Your task to perform on an android device: Toggle the flashlight Image 0: 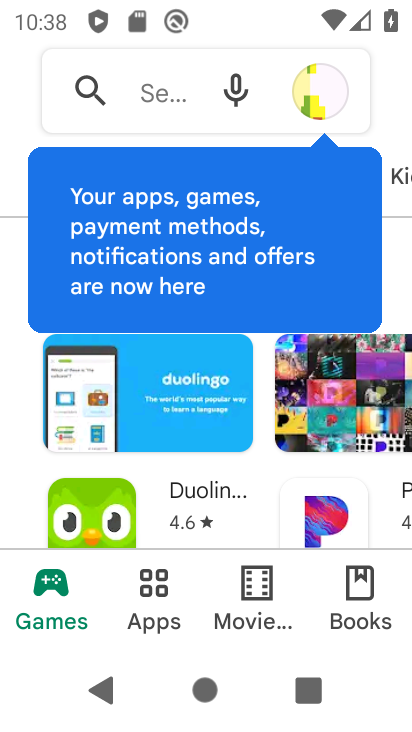
Step 0: press home button
Your task to perform on an android device: Toggle the flashlight Image 1: 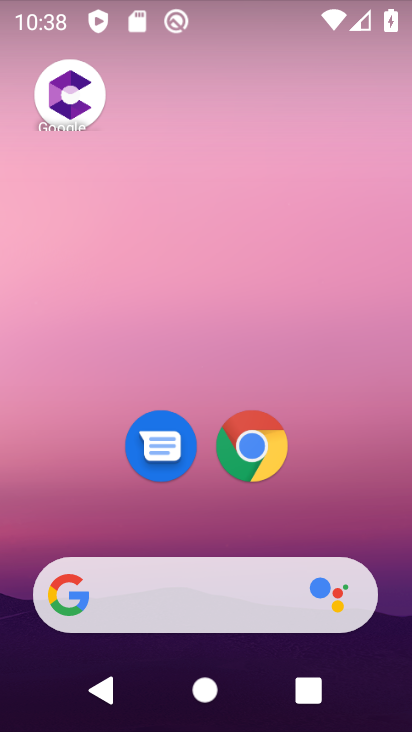
Step 1: drag from (202, 533) to (296, 33)
Your task to perform on an android device: Toggle the flashlight Image 2: 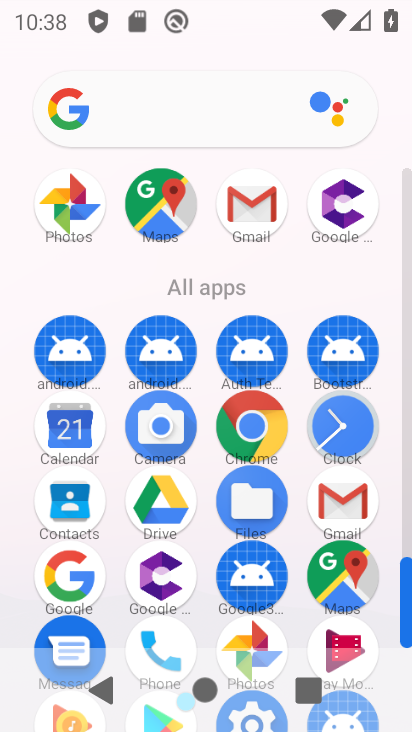
Step 2: drag from (199, 614) to (212, 302)
Your task to perform on an android device: Toggle the flashlight Image 3: 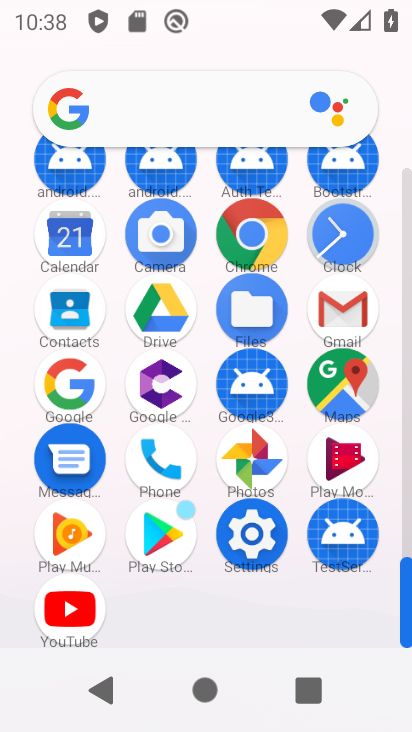
Step 3: click (245, 527)
Your task to perform on an android device: Toggle the flashlight Image 4: 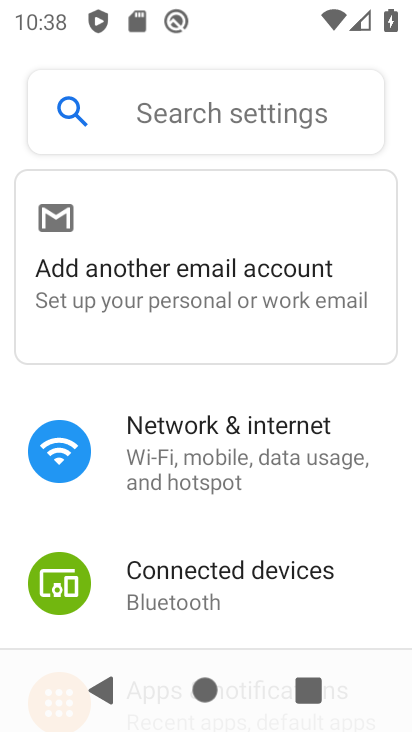
Step 4: click (179, 128)
Your task to perform on an android device: Toggle the flashlight Image 5: 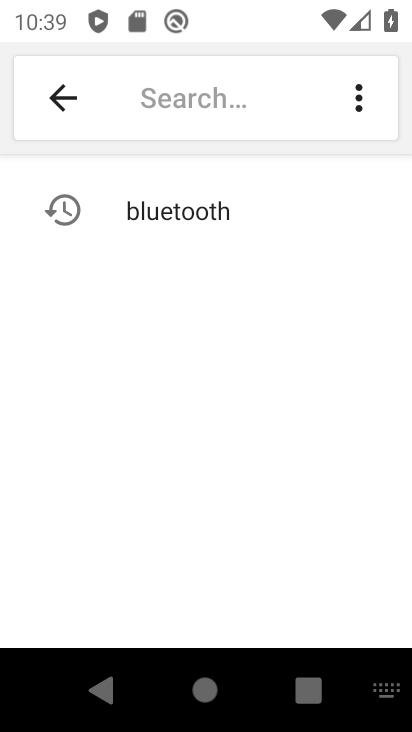
Step 5: type "flashlight"
Your task to perform on an android device: Toggle the flashlight Image 6: 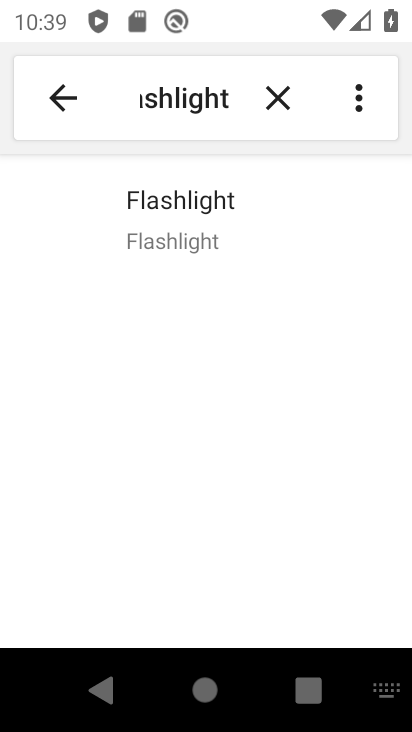
Step 6: click (218, 199)
Your task to perform on an android device: Toggle the flashlight Image 7: 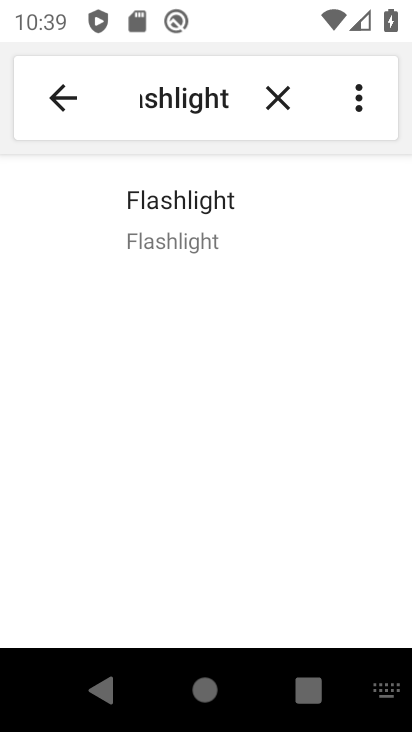
Step 7: click (287, 211)
Your task to perform on an android device: Toggle the flashlight Image 8: 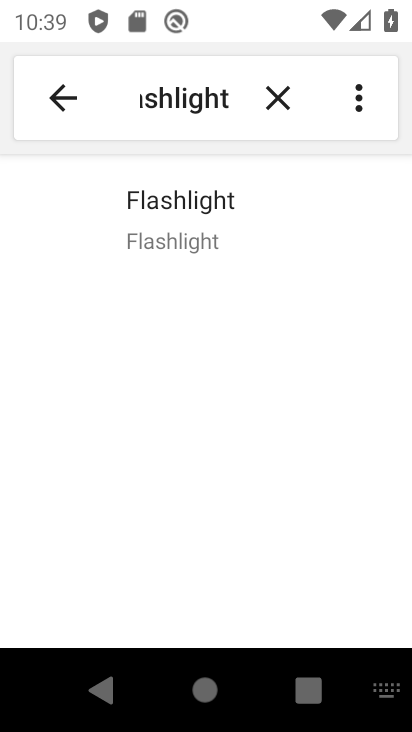
Step 8: task complete